Your task to perform on an android device: Open accessibility settings Image 0: 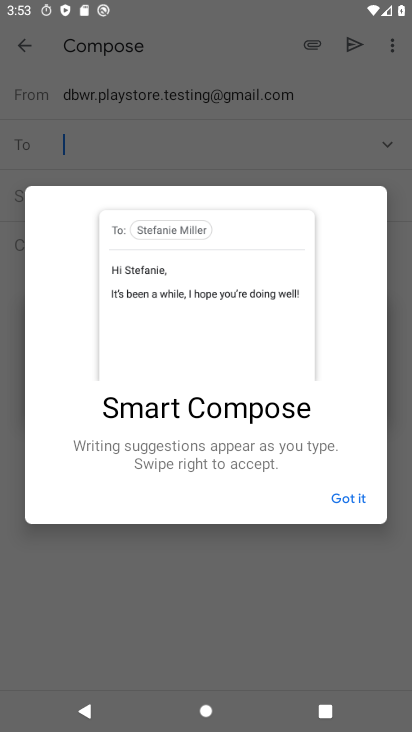
Step 0: press home button
Your task to perform on an android device: Open accessibility settings Image 1: 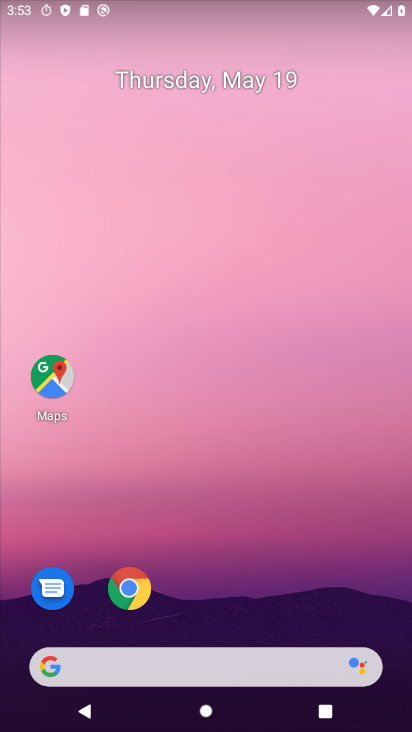
Step 1: drag from (254, 620) to (243, 19)
Your task to perform on an android device: Open accessibility settings Image 2: 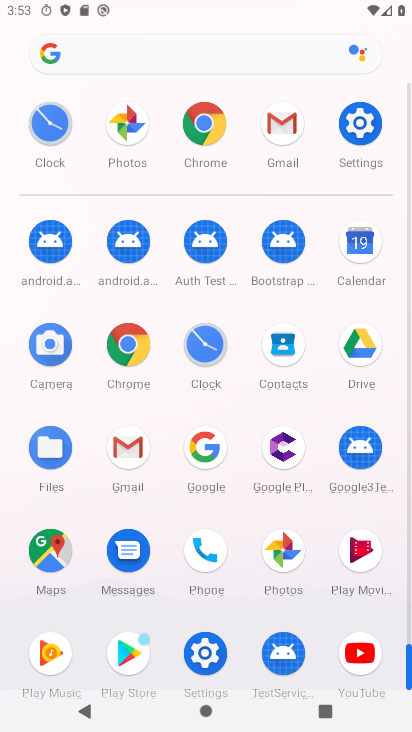
Step 2: click (359, 129)
Your task to perform on an android device: Open accessibility settings Image 3: 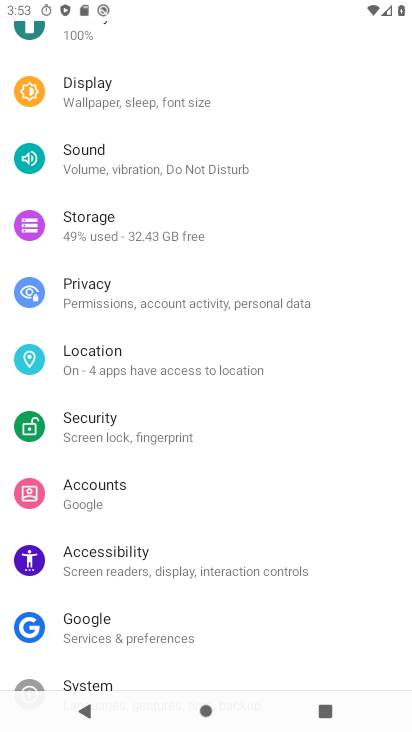
Step 3: click (147, 568)
Your task to perform on an android device: Open accessibility settings Image 4: 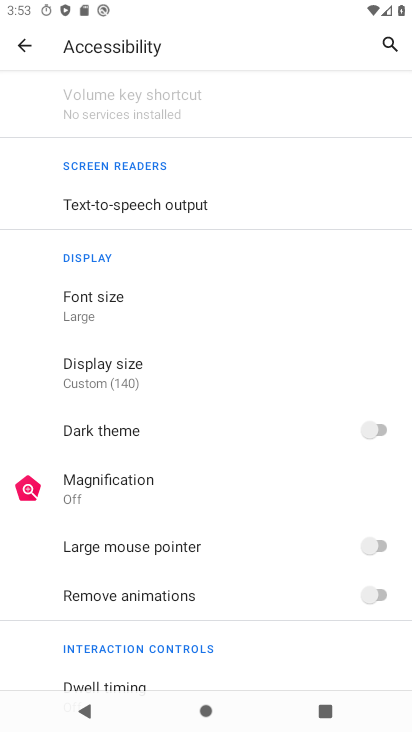
Step 4: task complete